Your task to perform on an android device: find which apps use the phone's location Image 0: 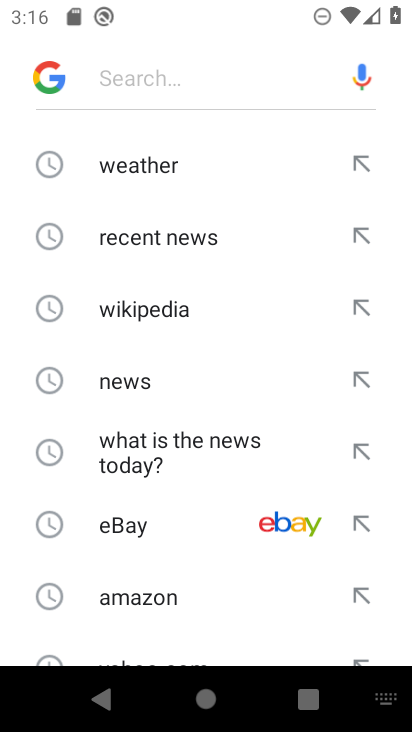
Step 0: press home button
Your task to perform on an android device: find which apps use the phone's location Image 1: 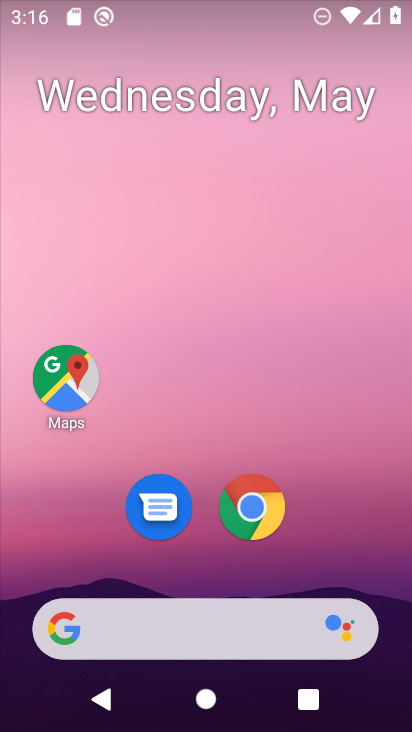
Step 1: drag from (209, 574) to (227, 258)
Your task to perform on an android device: find which apps use the phone's location Image 2: 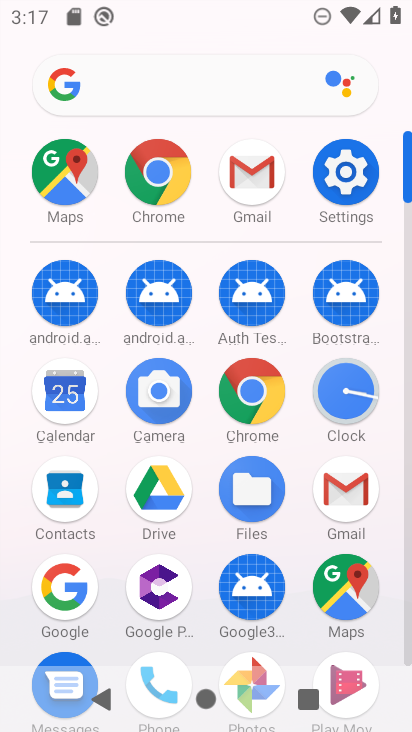
Step 2: drag from (211, 564) to (212, 293)
Your task to perform on an android device: find which apps use the phone's location Image 3: 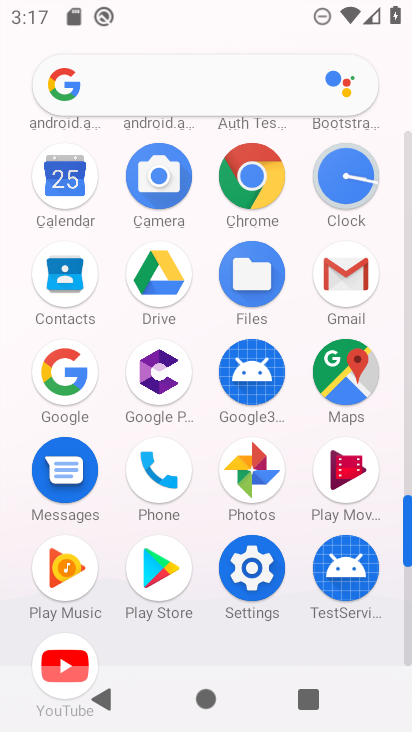
Step 3: click (267, 579)
Your task to perform on an android device: find which apps use the phone's location Image 4: 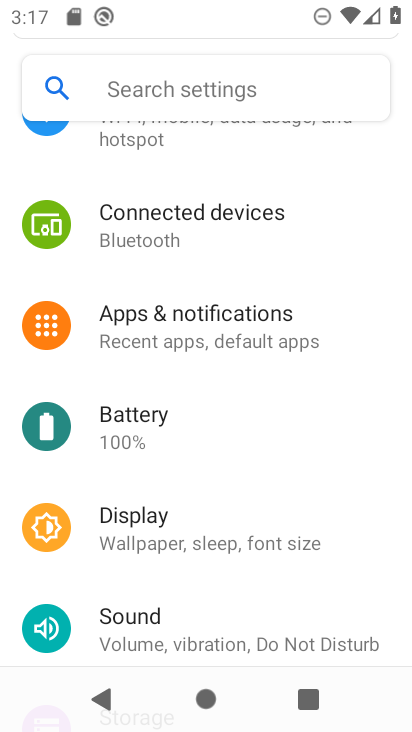
Step 4: drag from (217, 279) to (277, 95)
Your task to perform on an android device: find which apps use the phone's location Image 5: 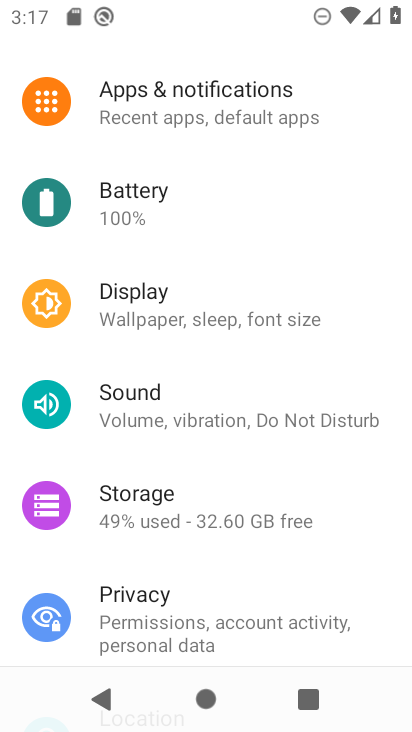
Step 5: drag from (216, 573) to (294, 191)
Your task to perform on an android device: find which apps use the phone's location Image 6: 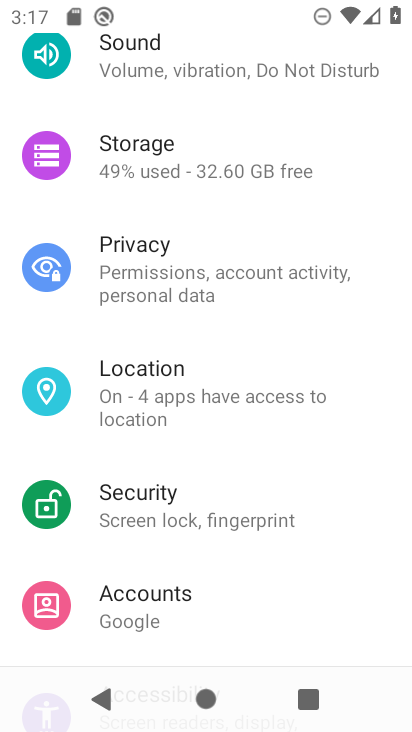
Step 6: click (198, 404)
Your task to perform on an android device: find which apps use the phone's location Image 7: 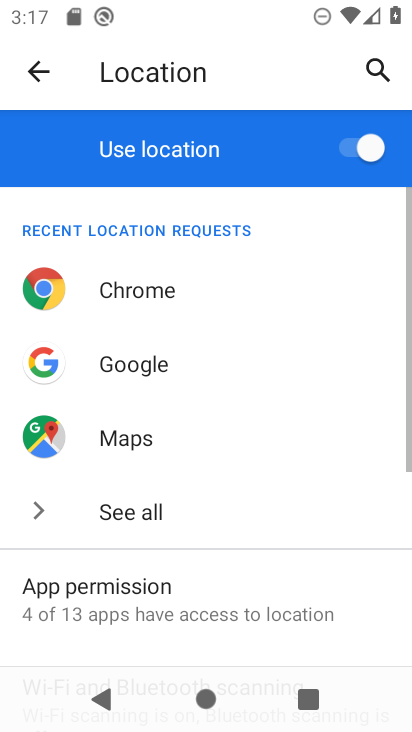
Step 7: drag from (172, 586) to (205, 394)
Your task to perform on an android device: find which apps use the phone's location Image 8: 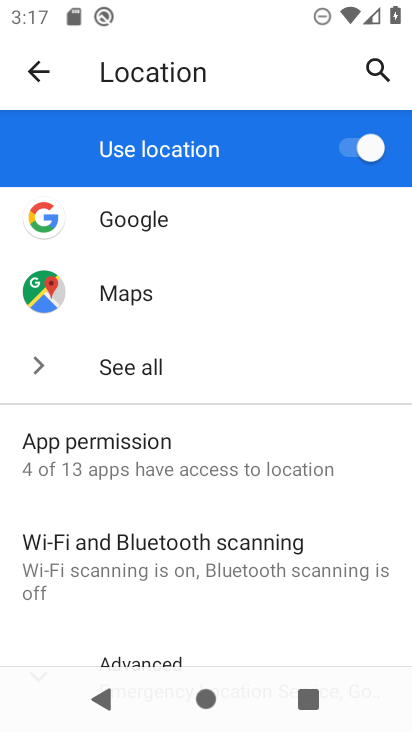
Step 8: drag from (175, 574) to (205, 389)
Your task to perform on an android device: find which apps use the phone's location Image 9: 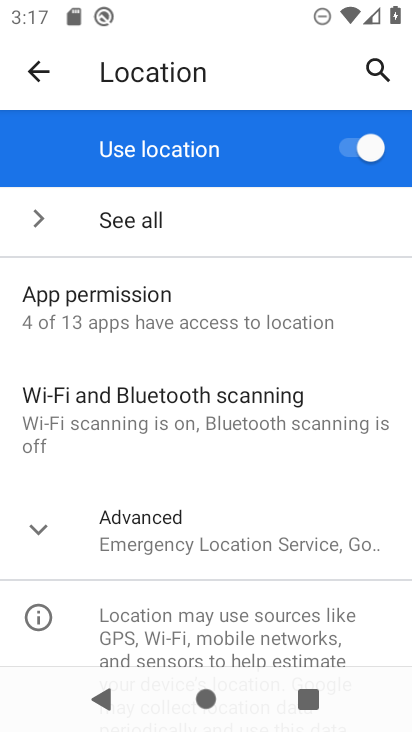
Step 9: click (180, 547)
Your task to perform on an android device: find which apps use the phone's location Image 10: 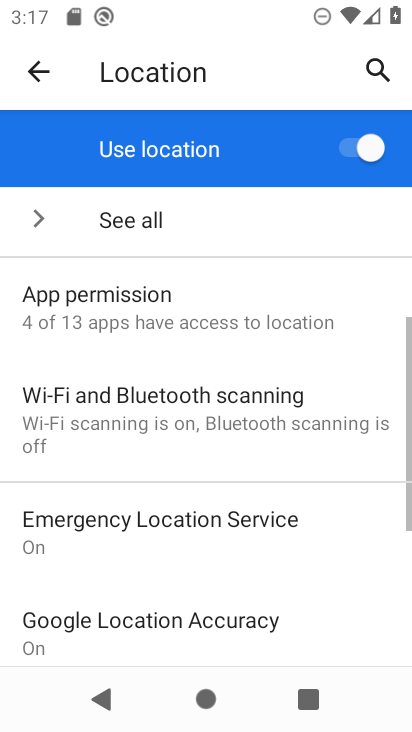
Step 10: drag from (195, 580) to (249, 415)
Your task to perform on an android device: find which apps use the phone's location Image 11: 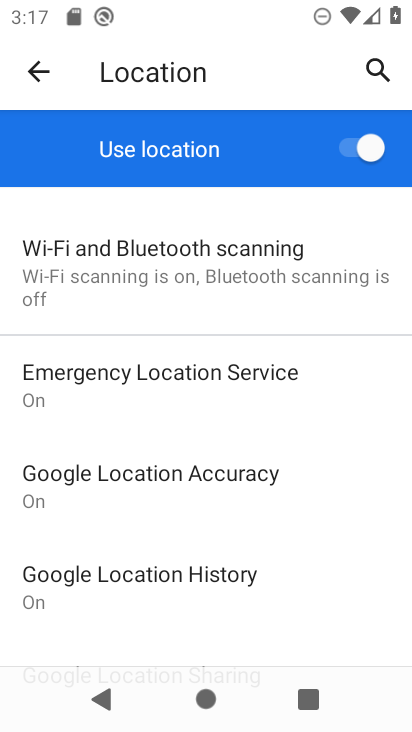
Step 11: click (212, 486)
Your task to perform on an android device: find which apps use the phone's location Image 12: 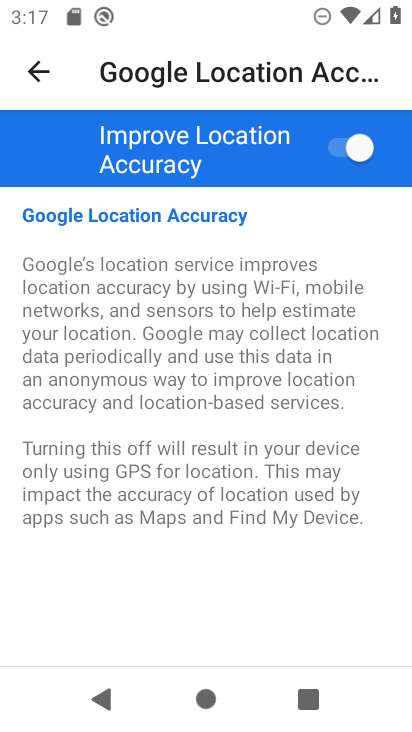
Step 12: click (35, 65)
Your task to perform on an android device: find which apps use the phone's location Image 13: 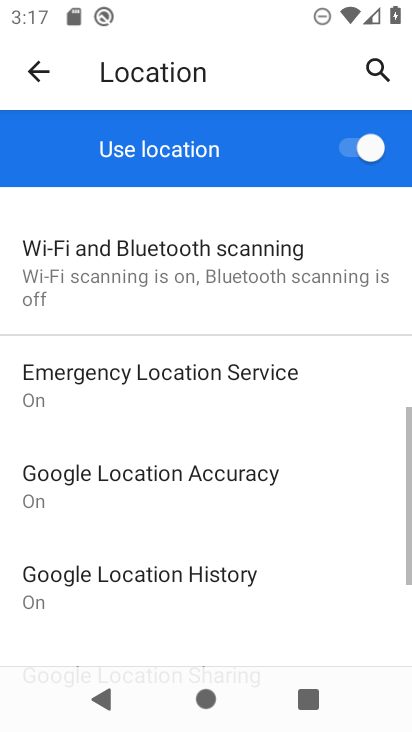
Step 13: drag from (225, 297) to (223, 605)
Your task to perform on an android device: find which apps use the phone's location Image 14: 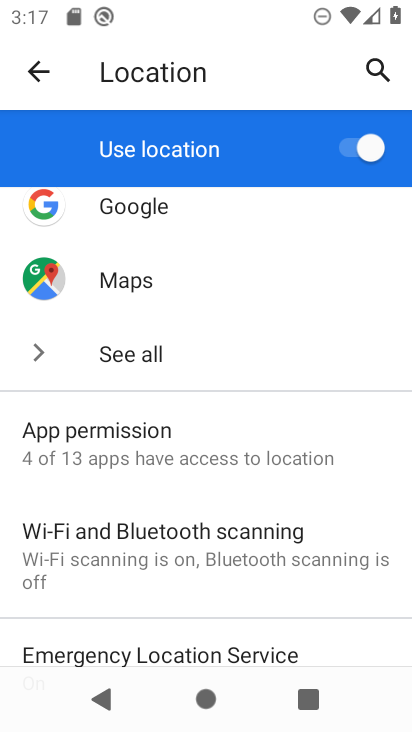
Step 14: click (157, 466)
Your task to perform on an android device: find which apps use the phone's location Image 15: 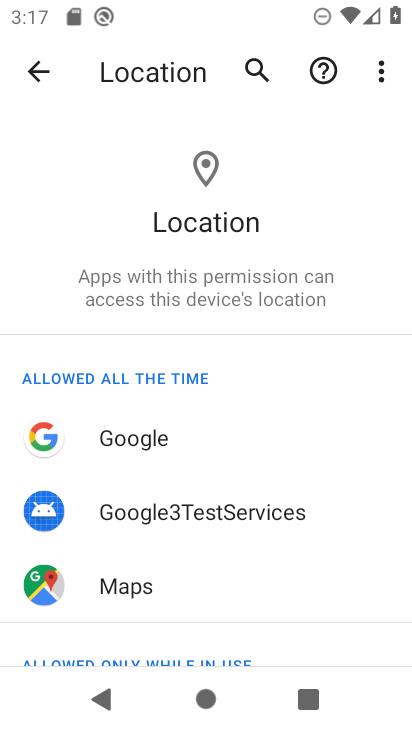
Step 15: task complete